Your task to perform on an android device: Go to Android settings Image 0: 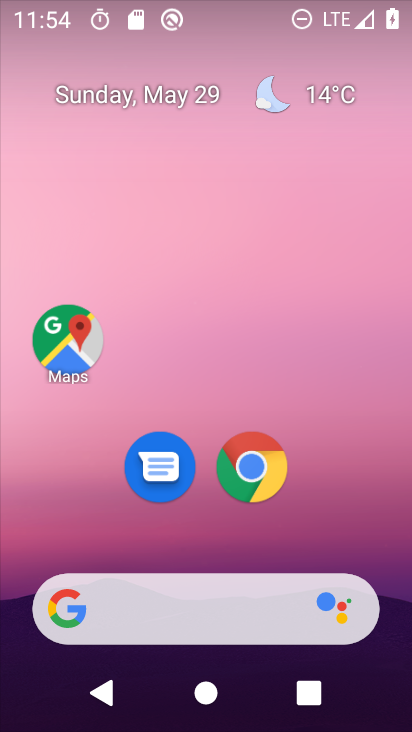
Step 0: drag from (211, 344) to (208, 126)
Your task to perform on an android device: Go to Android settings Image 1: 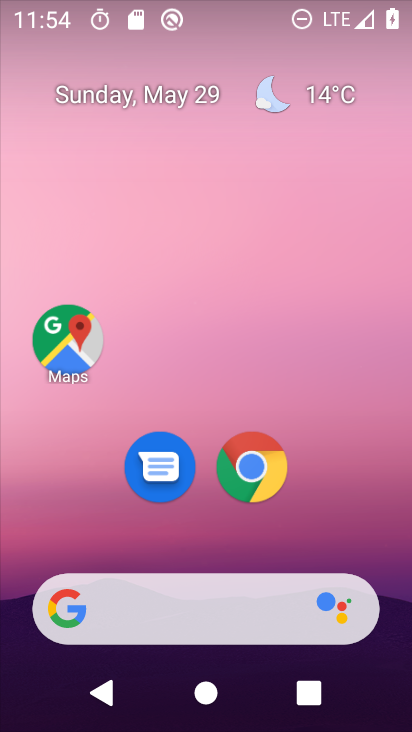
Step 1: drag from (208, 538) to (221, 170)
Your task to perform on an android device: Go to Android settings Image 2: 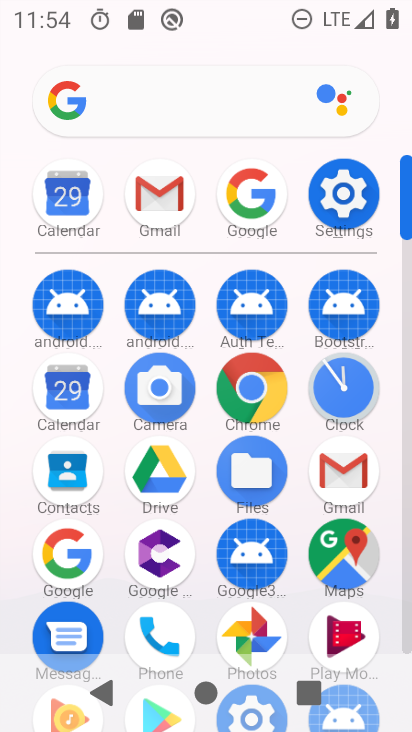
Step 2: click (316, 202)
Your task to perform on an android device: Go to Android settings Image 3: 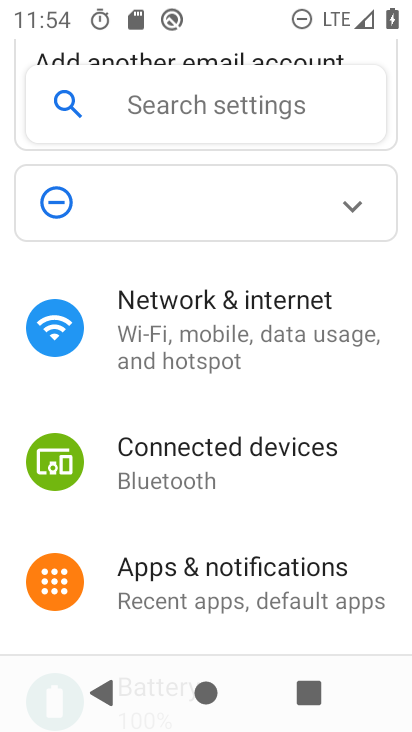
Step 3: task complete